Your task to perform on an android device: Show me productivity apps on the Play Store Image 0: 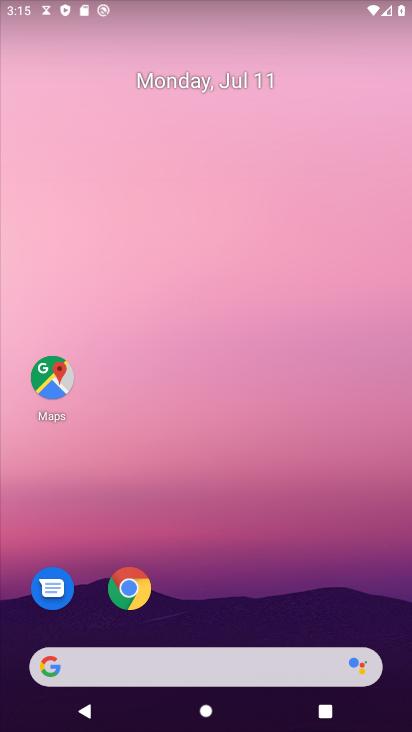
Step 0: drag from (252, 493) to (50, 161)
Your task to perform on an android device: Show me productivity apps on the Play Store Image 1: 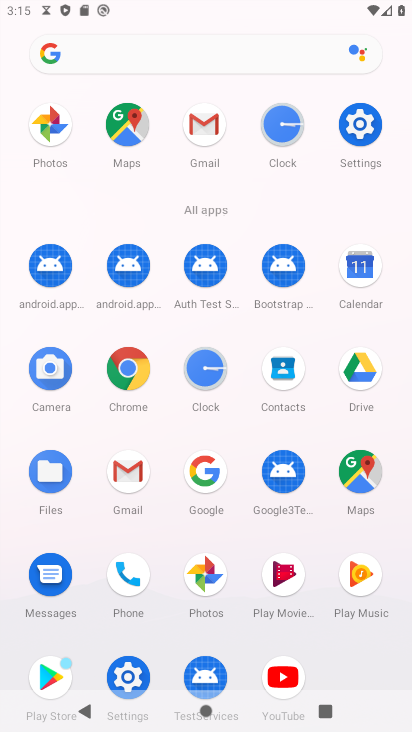
Step 1: click (52, 662)
Your task to perform on an android device: Show me productivity apps on the Play Store Image 2: 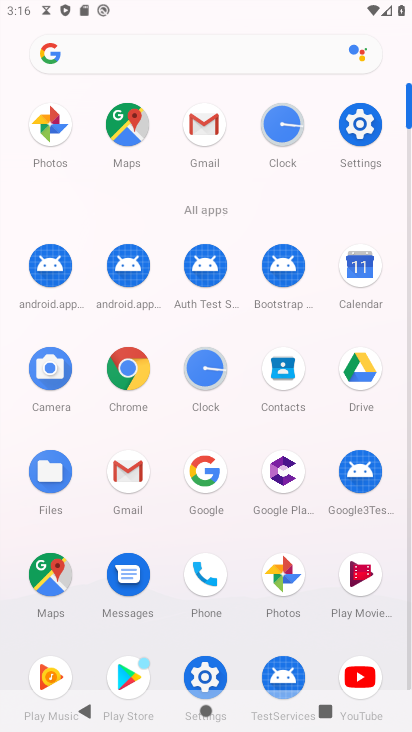
Step 2: click (121, 675)
Your task to perform on an android device: Show me productivity apps on the Play Store Image 3: 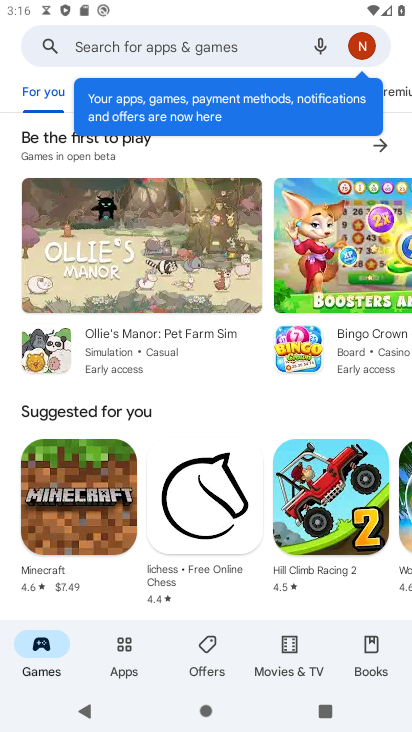
Step 3: click (123, 644)
Your task to perform on an android device: Show me productivity apps on the Play Store Image 4: 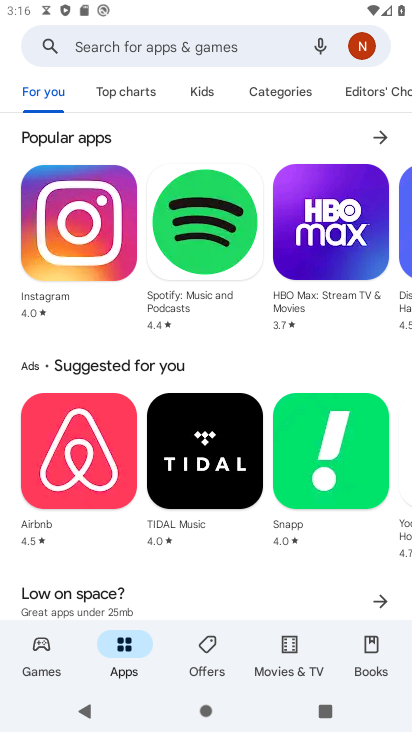
Step 4: click (284, 95)
Your task to perform on an android device: Show me productivity apps on the Play Store Image 5: 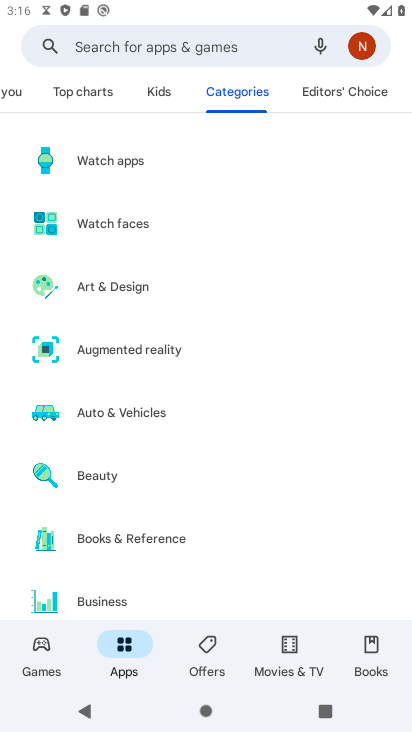
Step 5: drag from (209, 445) to (196, 15)
Your task to perform on an android device: Show me productivity apps on the Play Store Image 6: 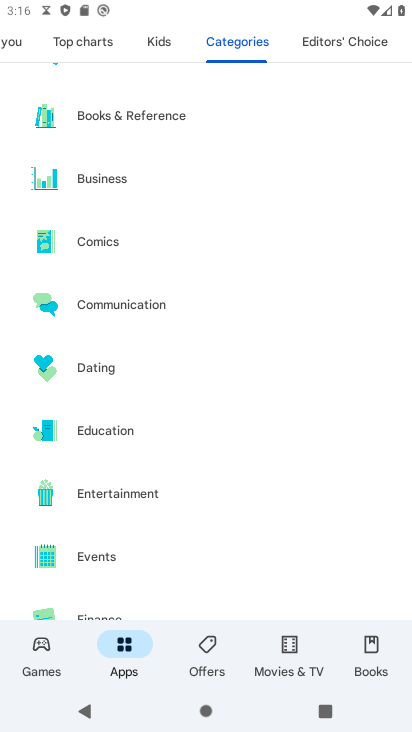
Step 6: drag from (209, 465) to (265, 7)
Your task to perform on an android device: Show me productivity apps on the Play Store Image 7: 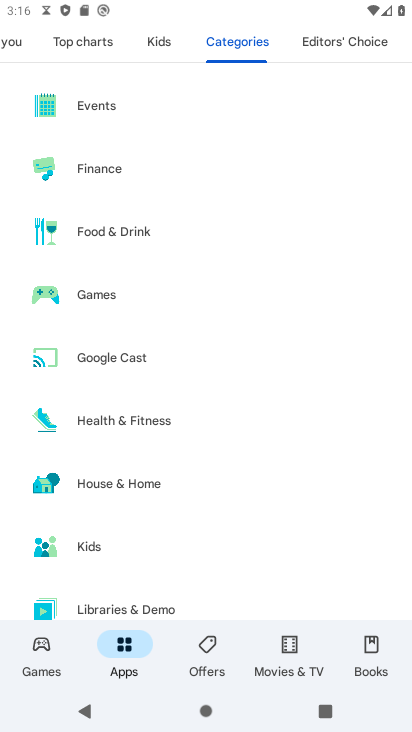
Step 7: drag from (231, 580) to (224, 142)
Your task to perform on an android device: Show me productivity apps on the Play Store Image 8: 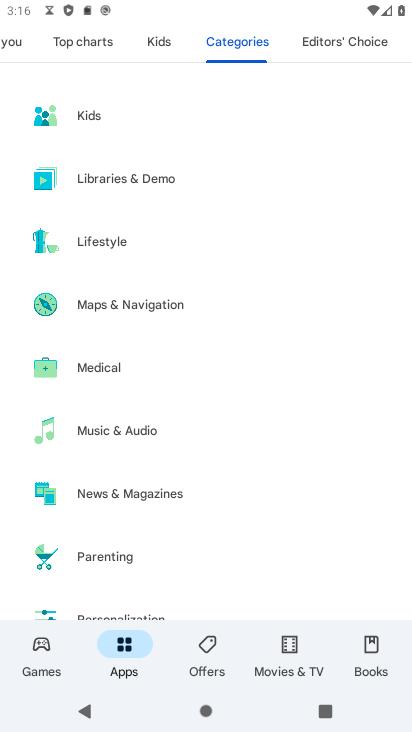
Step 8: drag from (212, 525) to (219, 139)
Your task to perform on an android device: Show me productivity apps on the Play Store Image 9: 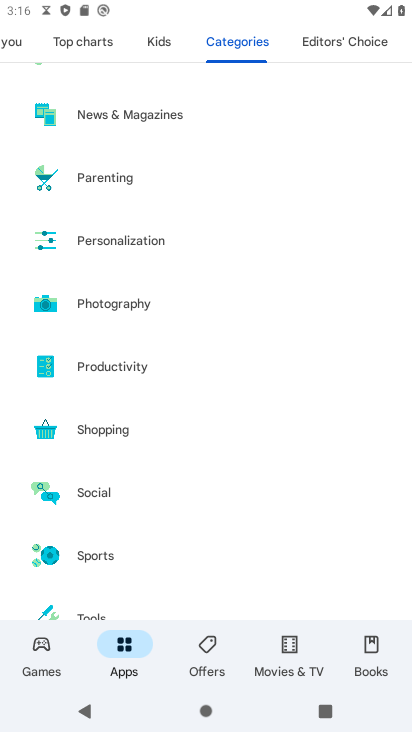
Step 9: click (166, 363)
Your task to perform on an android device: Show me productivity apps on the Play Store Image 10: 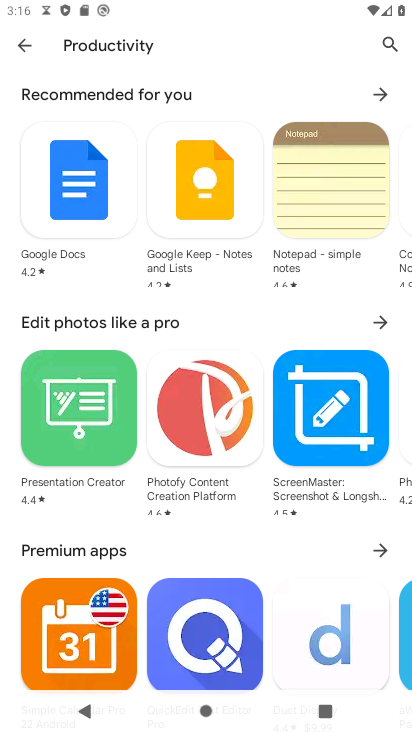
Step 10: task complete